Your task to perform on an android device: toggle notification dots Image 0: 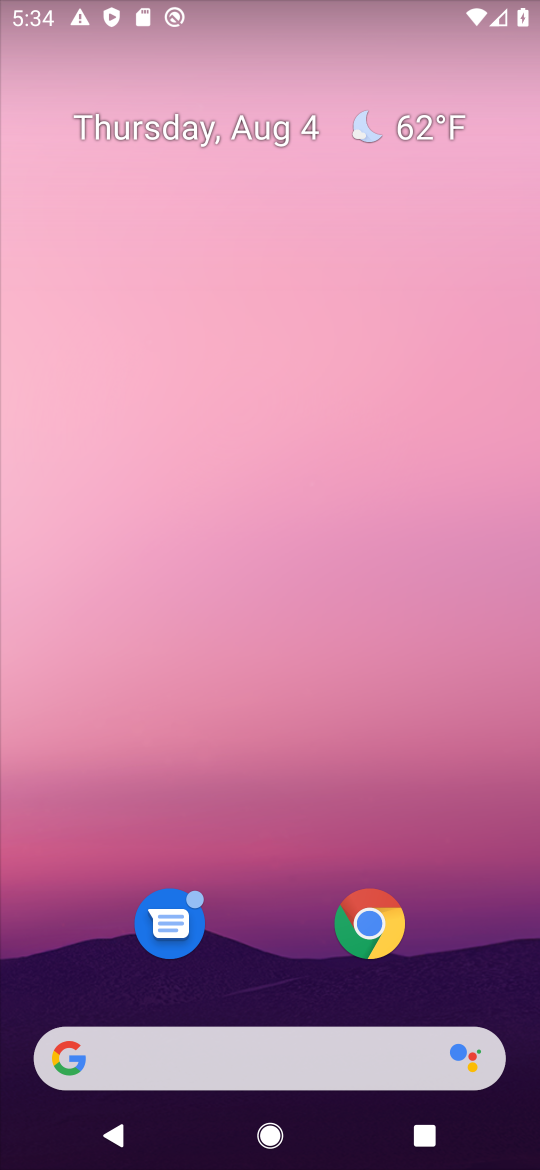
Step 0: press home button
Your task to perform on an android device: toggle notification dots Image 1: 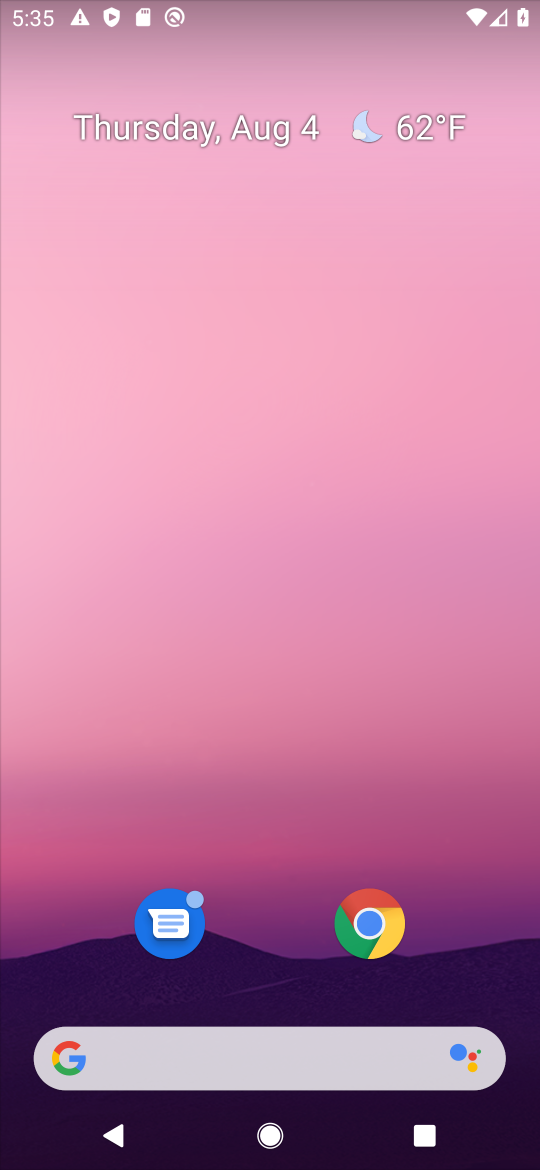
Step 1: drag from (466, 967) to (418, 226)
Your task to perform on an android device: toggle notification dots Image 2: 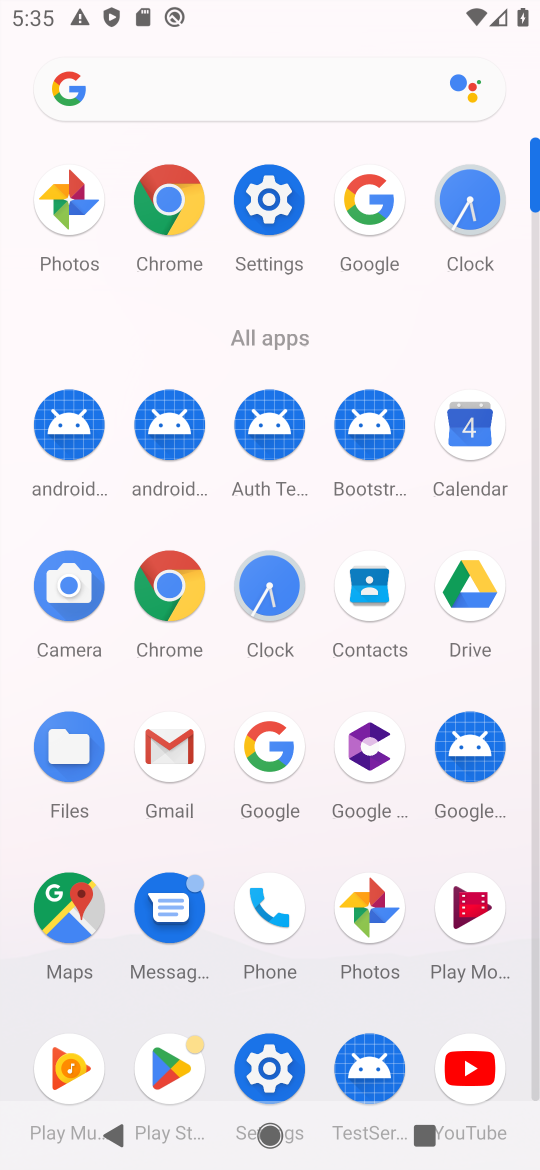
Step 2: click (254, 1058)
Your task to perform on an android device: toggle notification dots Image 3: 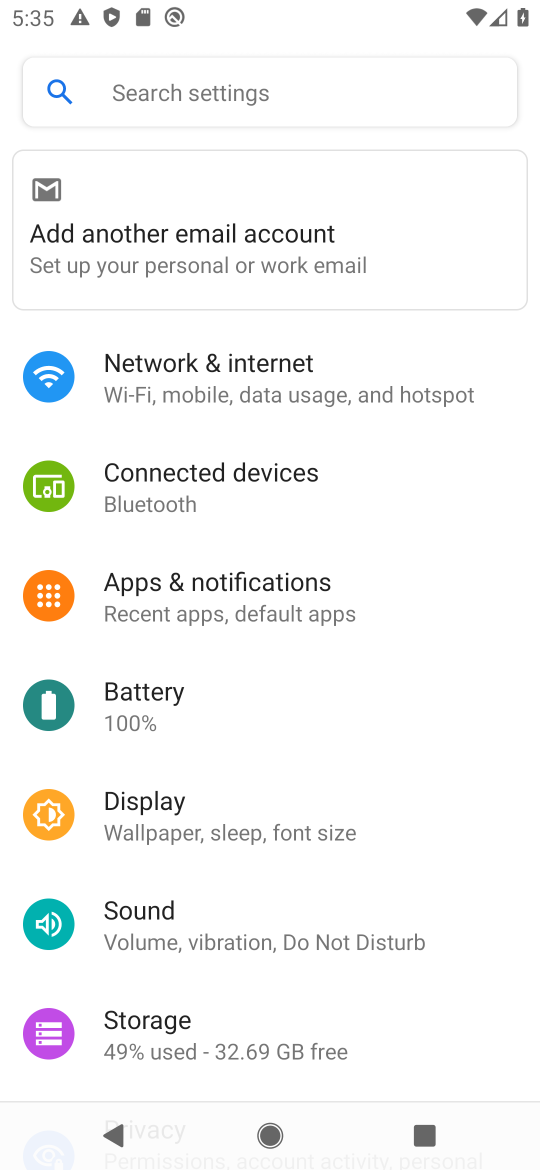
Step 3: click (232, 572)
Your task to perform on an android device: toggle notification dots Image 4: 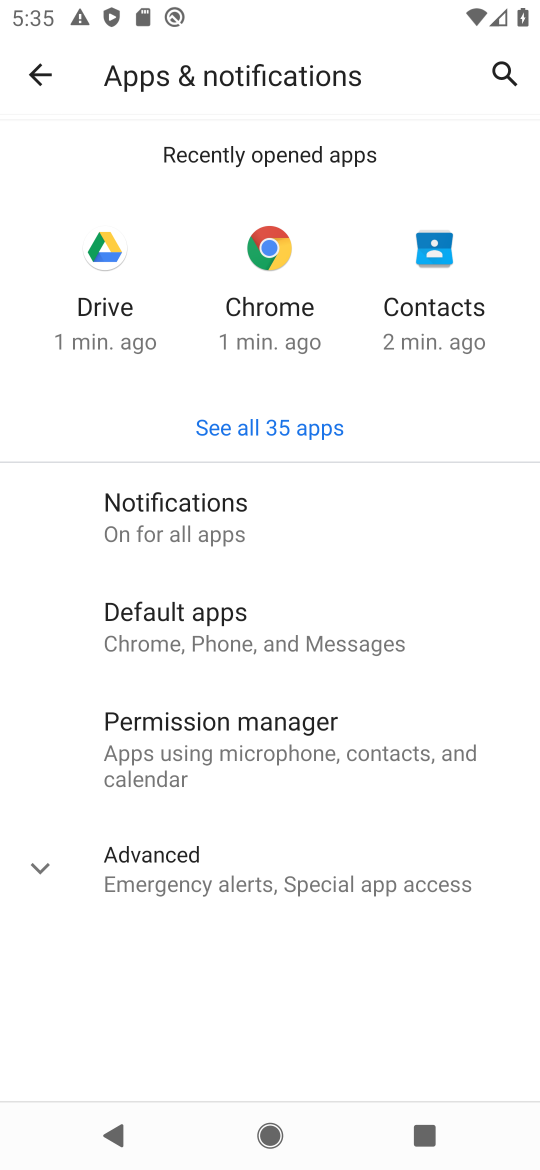
Step 4: click (224, 510)
Your task to perform on an android device: toggle notification dots Image 5: 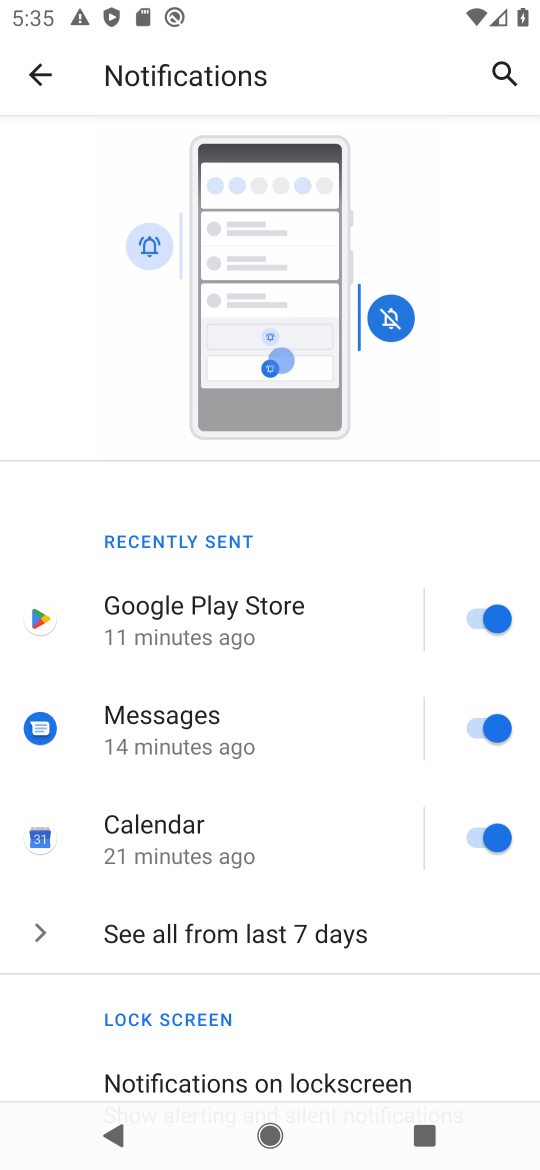
Step 5: drag from (397, 982) to (325, 550)
Your task to perform on an android device: toggle notification dots Image 6: 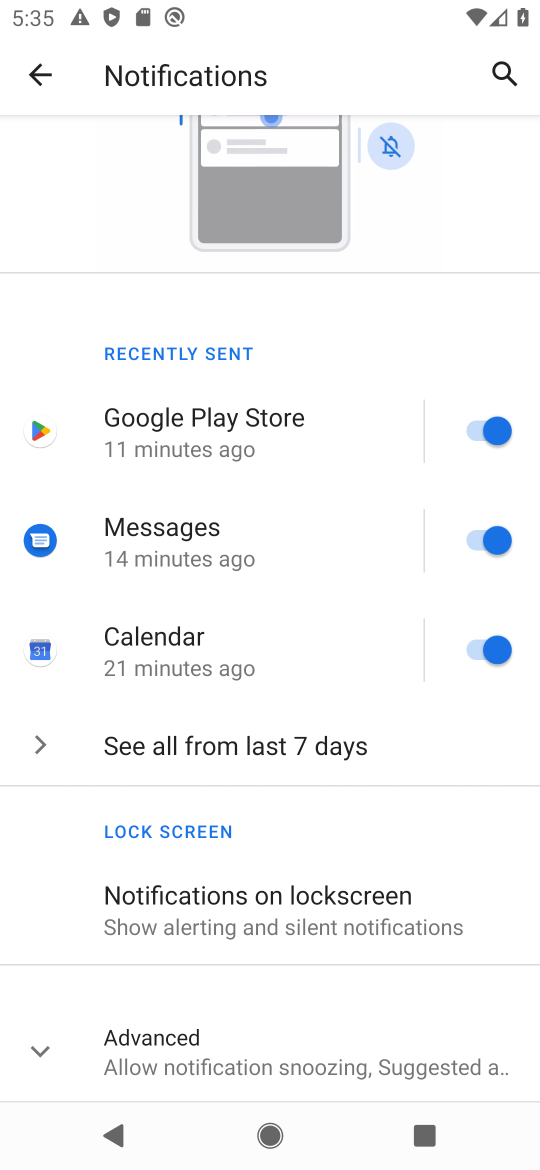
Step 6: click (314, 1041)
Your task to perform on an android device: toggle notification dots Image 7: 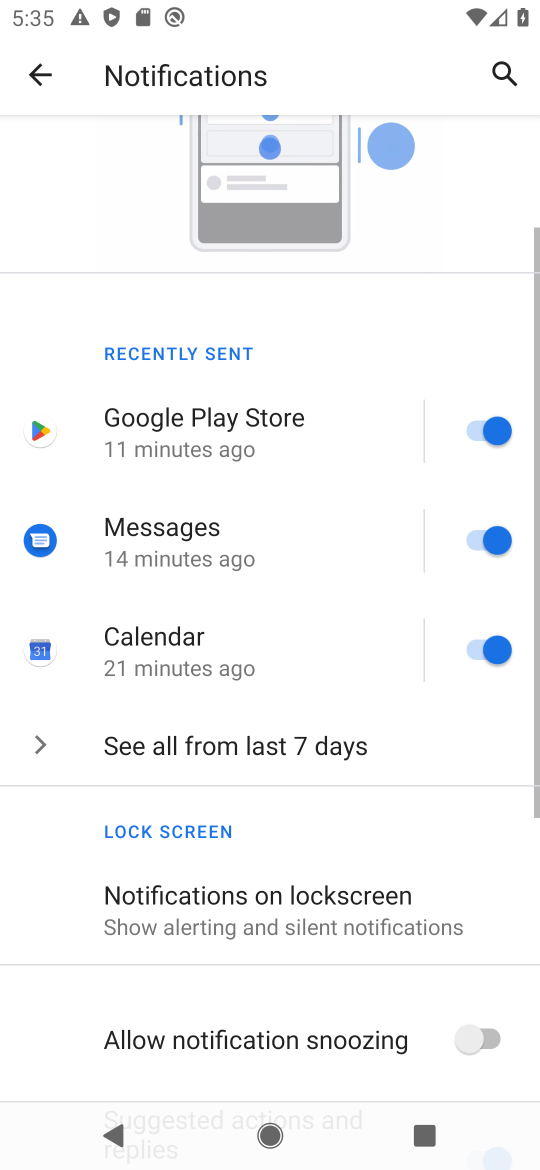
Step 7: drag from (314, 1041) to (275, 420)
Your task to perform on an android device: toggle notification dots Image 8: 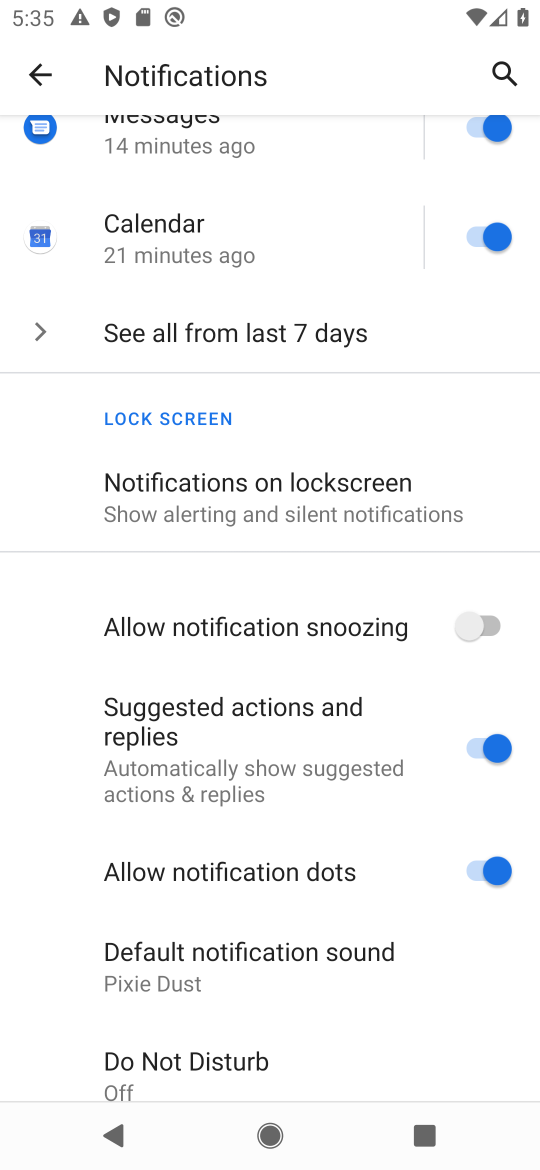
Step 8: click (479, 875)
Your task to perform on an android device: toggle notification dots Image 9: 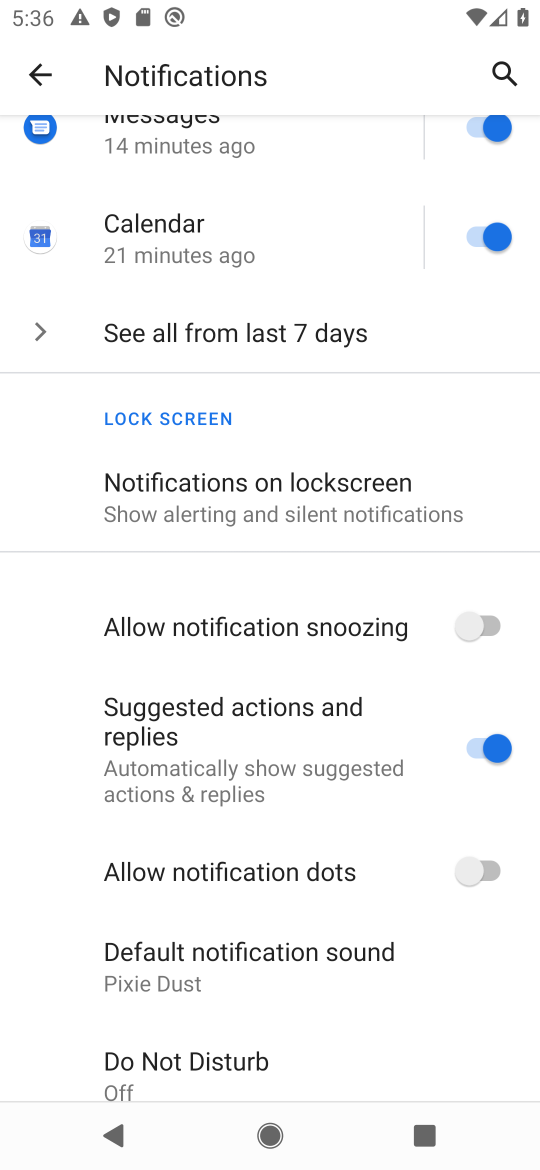
Step 9: task complete